Your task to perform on an android device: open app "Contacts" Image 0: 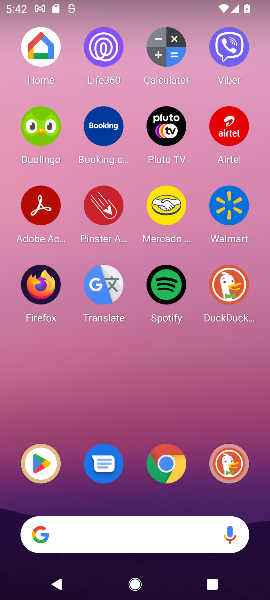
Step 0: press home button
Your task to perform on an android device: open app "Contacts" Image 1: 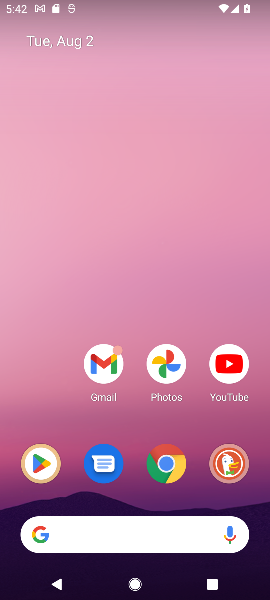
Step 1: click (27, 456)
Your task to perform on an android device: open app "Contacts" Image 2: 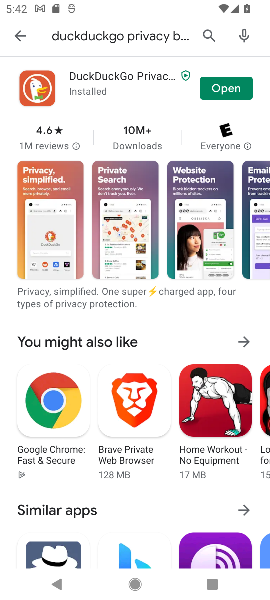
Step 2: click (205, 32)
Your task to perform on an android device: open app "Contacts" Image 3: 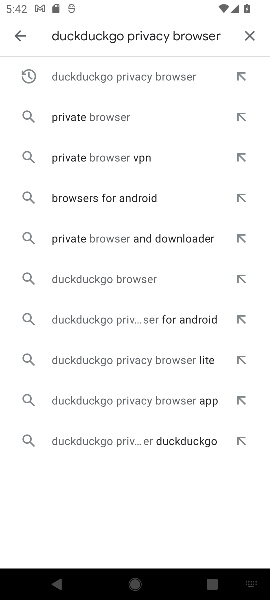
Step 3: click (245, 30)
Your task to perform on an android device: open app "Contacts" Image 4: 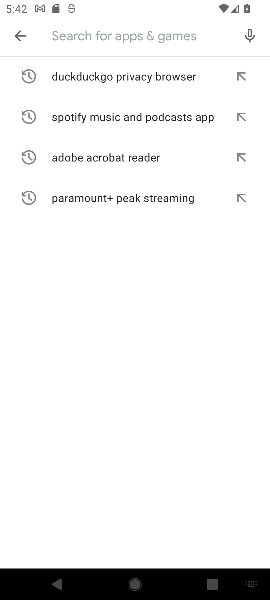
Step 4: type "Contacts"
Your task to perform on an android device: open app "Contacts" Image 5: 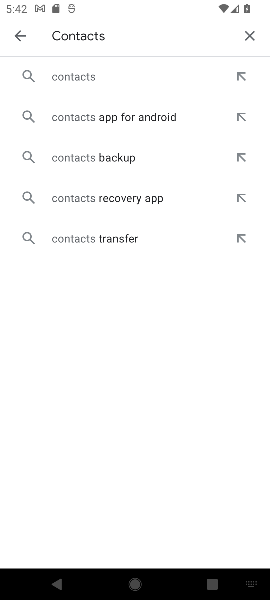
Step 5: click (74, 77)
Your task to perform on an android device: open app "Contacts" Image 6: 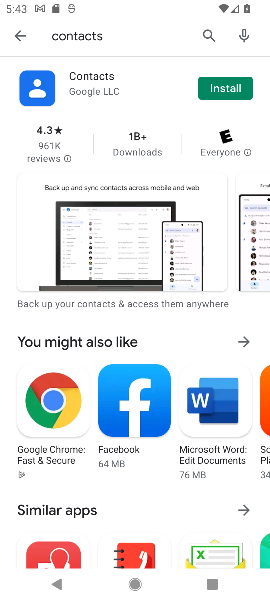
Step 6: task complete